Your task to perform on an android device: stop showing notifications on the lock screen Image 0: 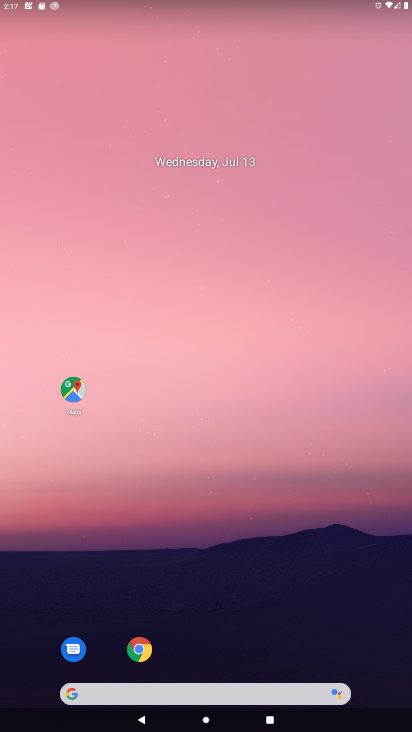
Step 0: drag from (289, 607) to (358, 121)
Your task to perform on an android device: stop showing notifications on the lock screen Image 1: 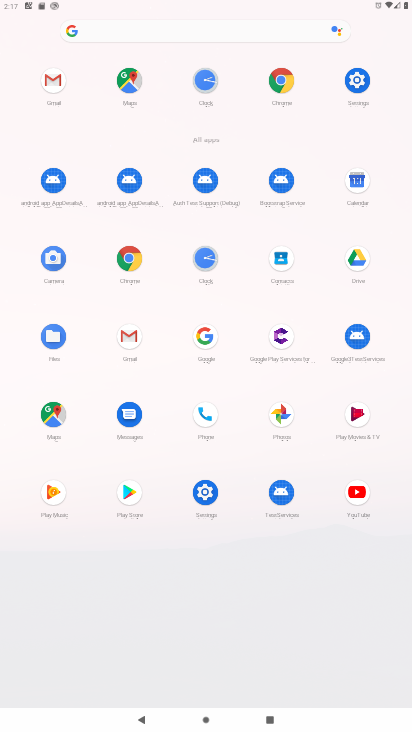
Step 1: click (199, 493)
Your task to perform on an android device: stop showing notifications on the lock screen Image 2: 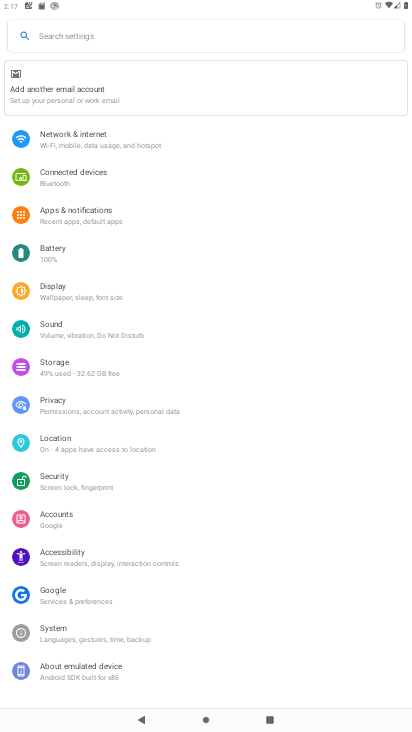
Step 2: click (96, 216)
Your task to perform on an android device: stop showing notifications on the lock screen Image 3: 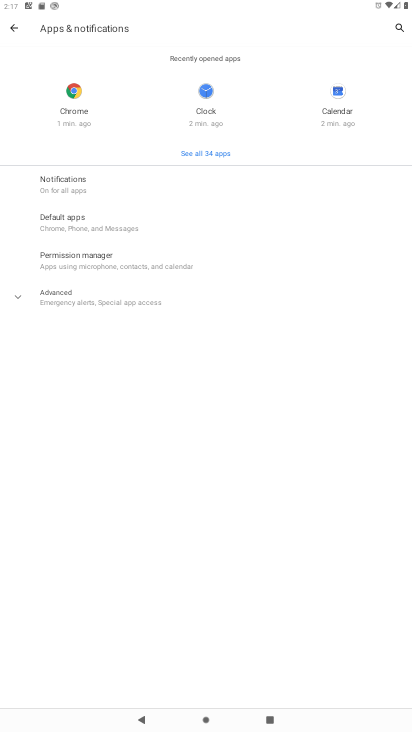
Step 3: click (70, 180)
Your task to perform on an android device: stop showing notifications on the lock screen Image 4: 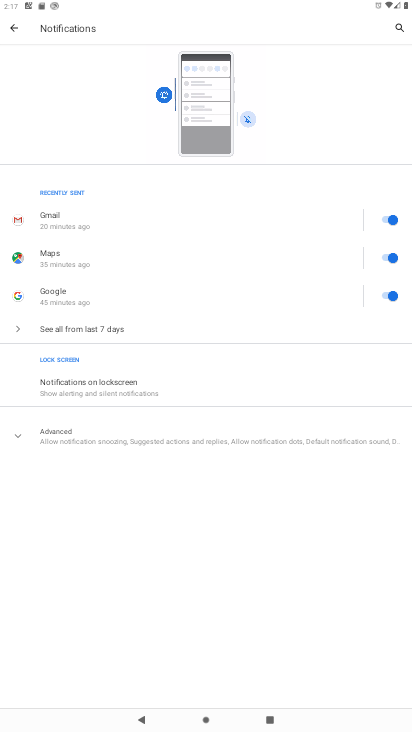
Step 4: click (58, 387)
Your task to perform on an android device: stop showing notifications on the lock screen Image 5: 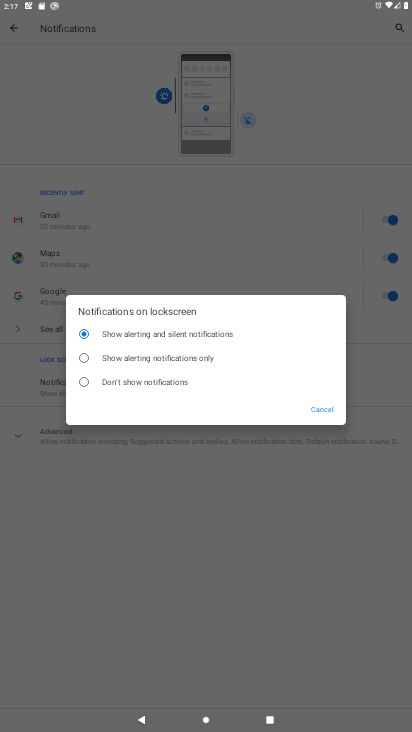
Step 5: click (88, 382)
Your task to perform on an android device: stop showing notifications on the lock screen Image 6: 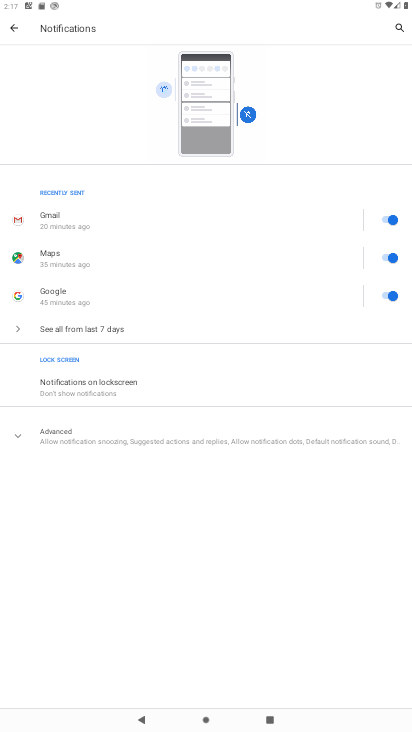
Step 6: task complete